Your task to perform on an android device: Open my contact list Image 0: 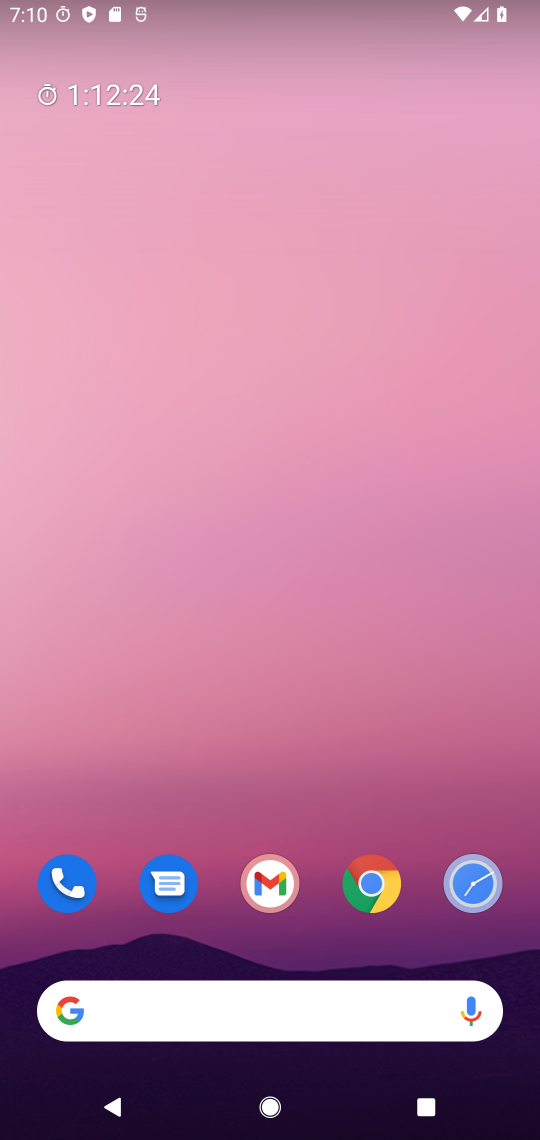
Step 0: drag from (254, 826) to (258, 256)
Your task to perform on an android device: Open my contact list Image 1: 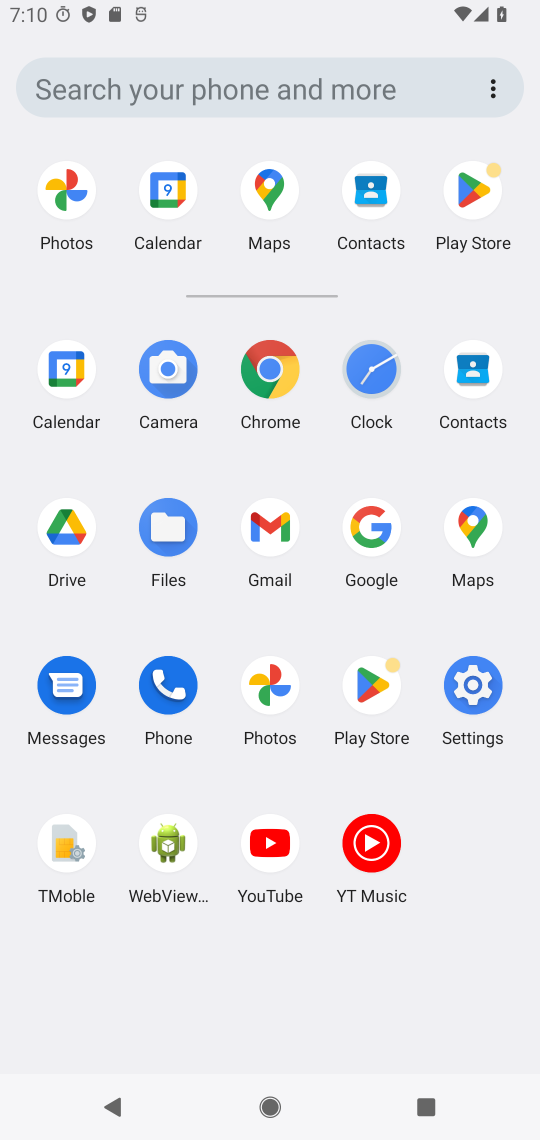
Step 1: click (478, 407)
Your task to perform on an android device: Open my contact list Image 2: 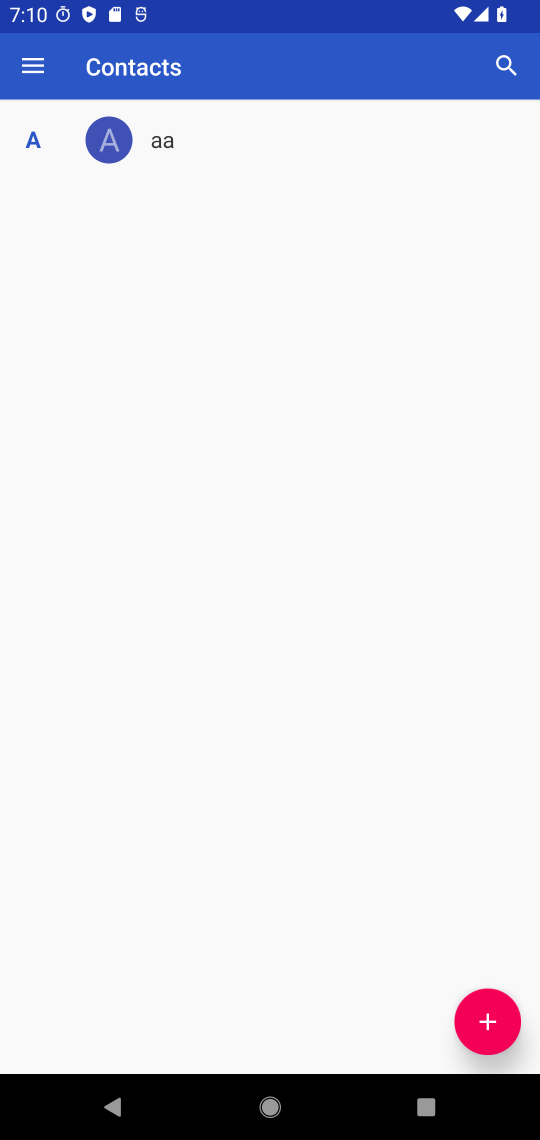
Step 2: task complete